Your task to perform on an android device: Go to location settings Image 0: 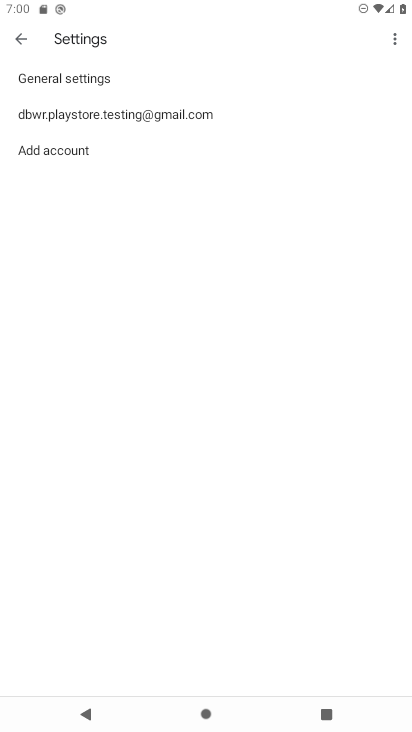
Step 0: press home button
Your task to perform on an android device: Go to location settings Image 1: 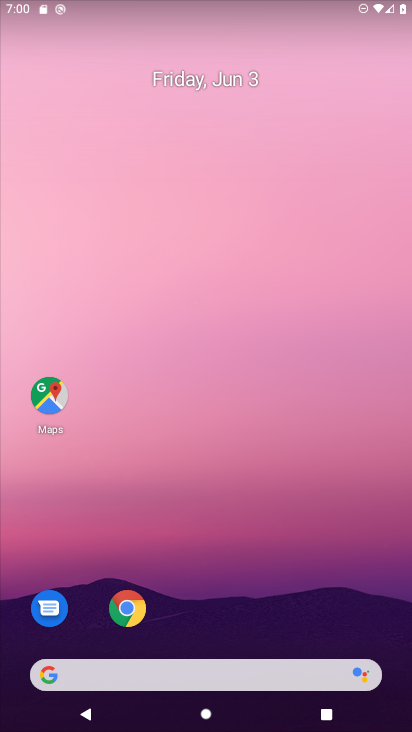
Step 1: drag from (211, 620) to (248, 55)
Your task to perform on an android device: Go to location settings Image 2: 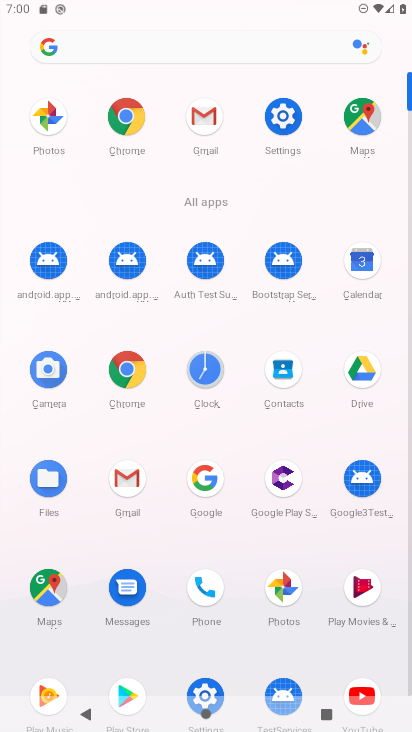
Step 2: click (274, 121)
Your task to perform on an android device: Go to location settings Image 3: 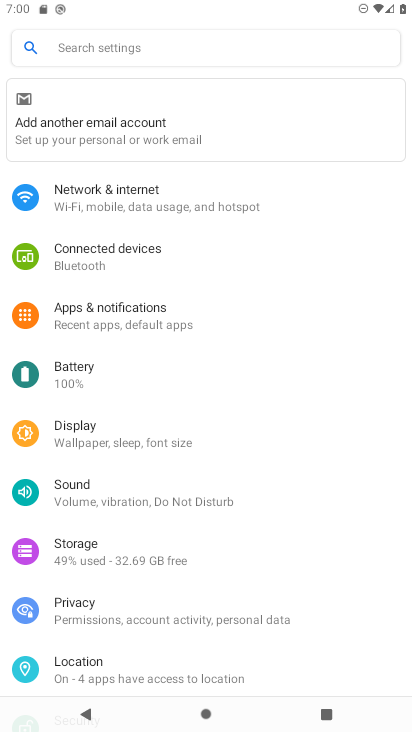
Step 3: click (72, 659)
Your task to perform on an android device: Go to location settings Image 4: 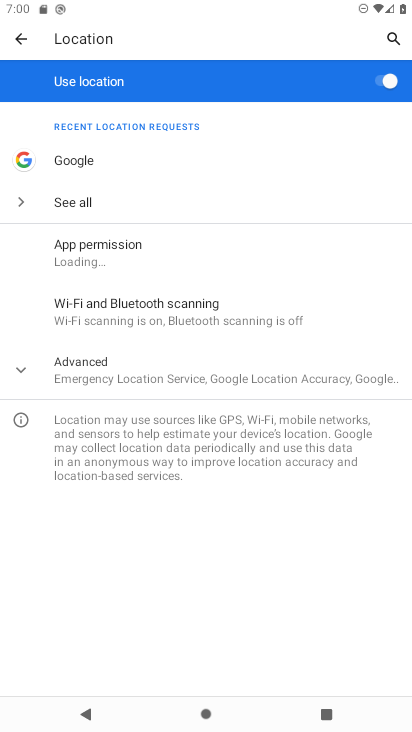
Step 4: task complete